Your task to perform on an android device: Open Android settings Image 0: 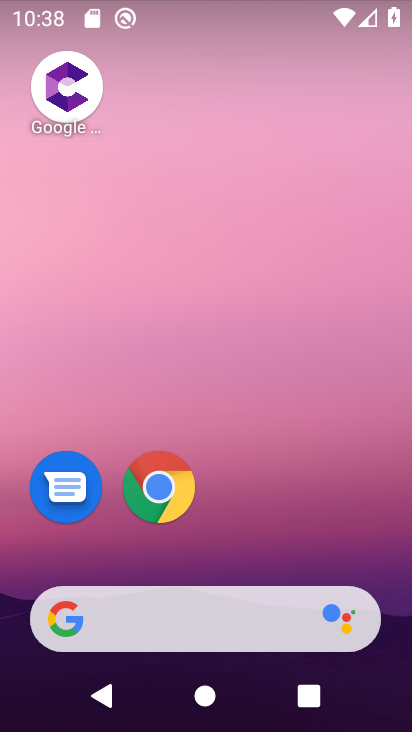
Step 0: drag from (260, 548) to (302, 12)
Your task to perform on an android device: Open Android settings Image 1: 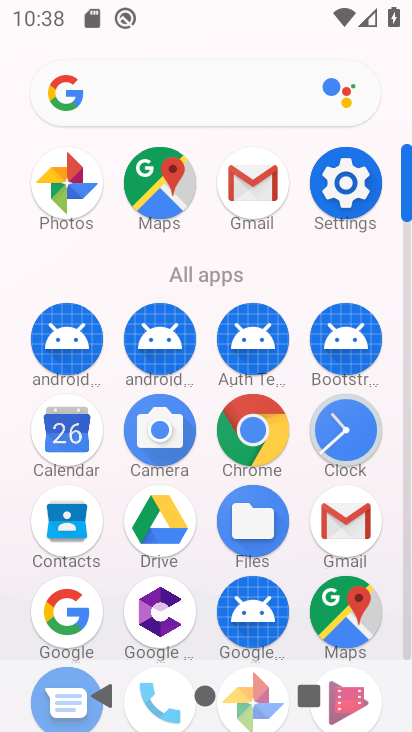
Step 1: click (338, 195)
Your task to perform on an android device: Open Android settings Image 2: 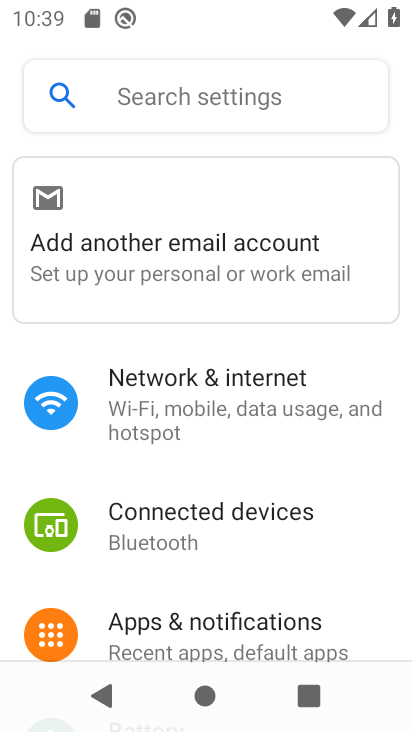
Step 2: drag from (222, 642) to (273, 0)
Your task to perform on an android device: Open Android settings Image 3: 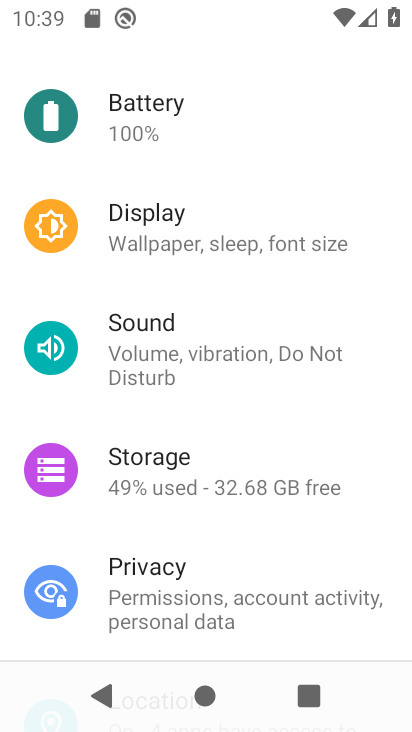
Step 3: drag from (184, 590) to (285, 8)
Your task to perform on an android device: Open Android settings Image 4: 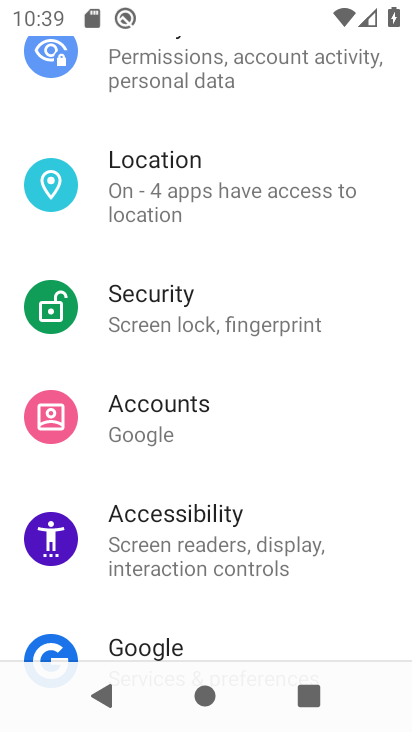
Step 4: drag from (147, 584) to (295, 11)
Your task to perform on an android device: Open Android settings Image 5: 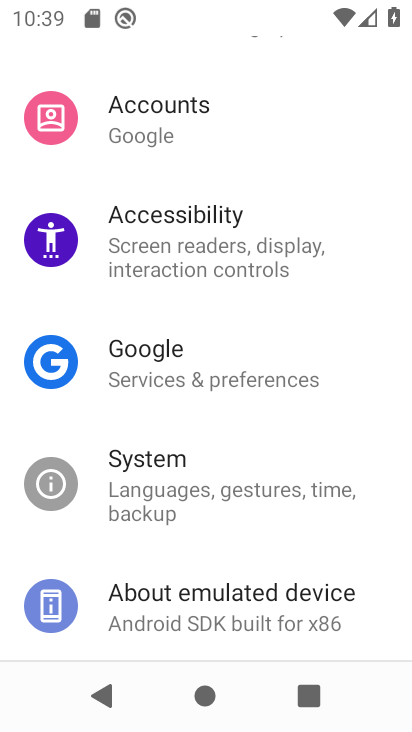
Step 5: click (193, 613)
Your task to perform on an android device: Open Android settings Image 6: 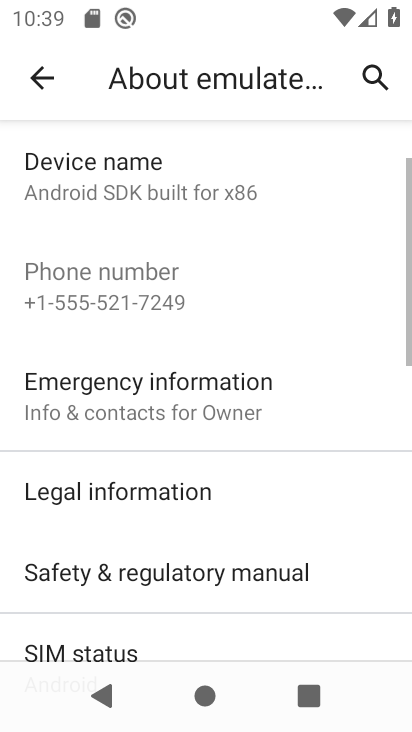
Step 6: task complete